Your task to perform on an android device: Search for pizza restaurants on Maps Image 0: 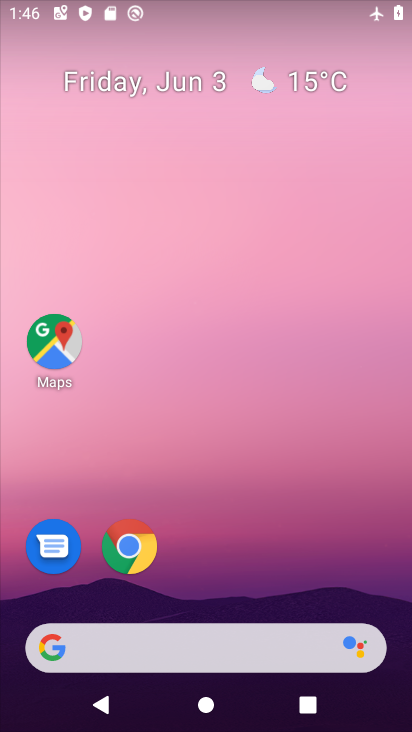
Step 0: drag from (320, 534) to (314, 0)
Your task to perform on an android device: Search for pizza restaurants on Maps Image 1: 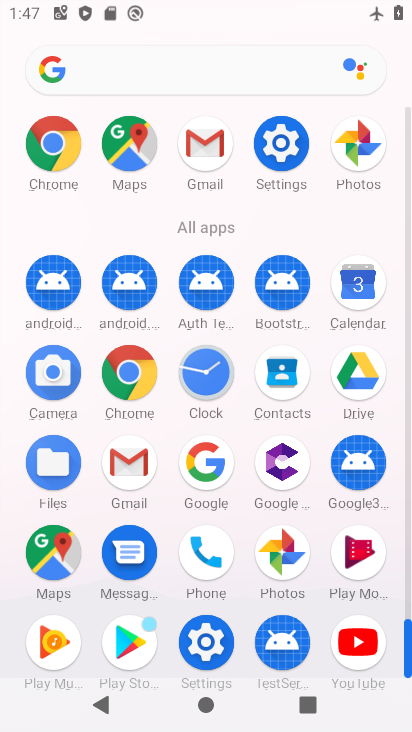
Step 1: click (122, 131)
Your task to perform on an android device: Search for pizza restaurants on Maps Image 2: 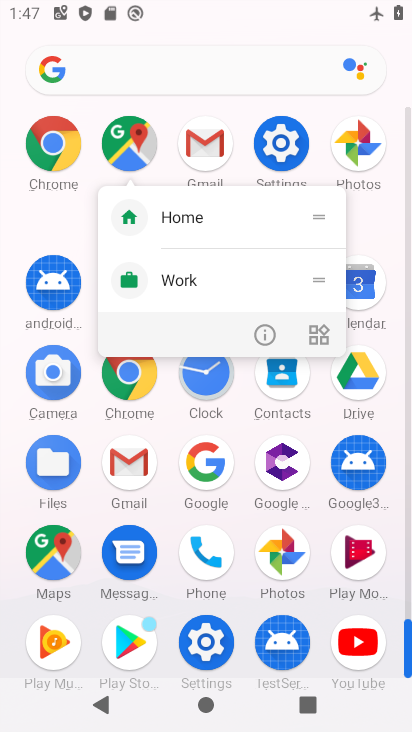
Step 2: click (122, 131)
Your task to perform on an android device: Search for pizza restaurants on Maps Image 3: 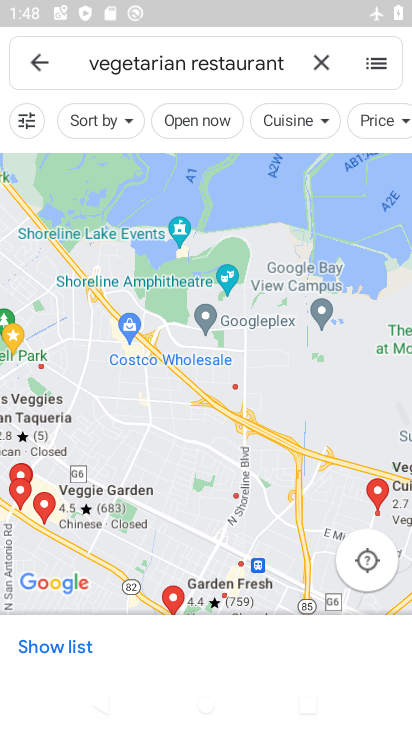
Step 3: click (311, 73)
Your task to perform on an android device: Search for pizza restaurants on Maps Image 4: 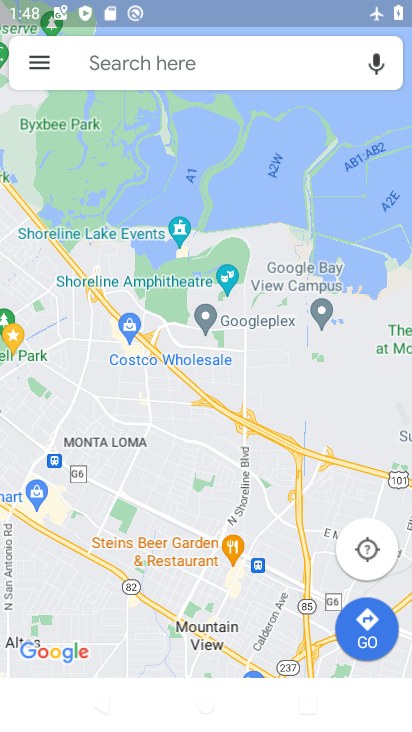
Step 4: click (201, 58)
Your task to perform on an android device: Search for pizza restaurants on Maps Image 5: 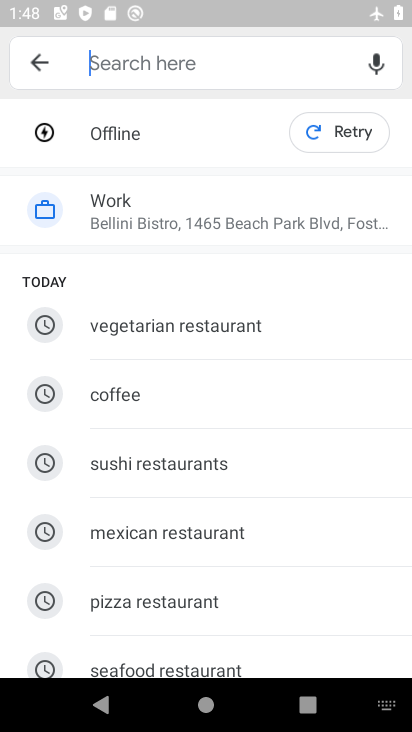
Step 5: click (149, 604)
Your task to perform on an android device: Search for pizza restaurants on Maps Image 6: 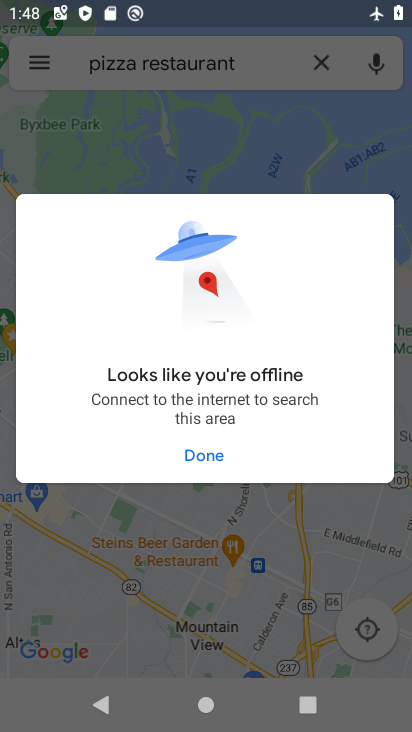
Step 6: task complete